Your task to perform on an android device: Find coffee shops on Maps Image 0: 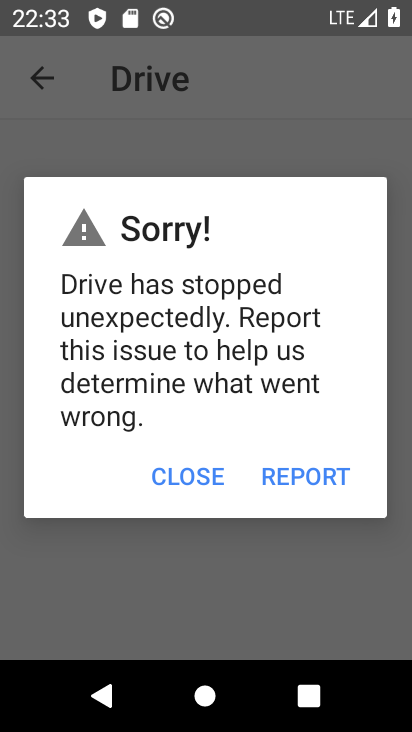
Step 0: press home button
Your task to perform on an android device: Find coffee shops on Maps Image 1: 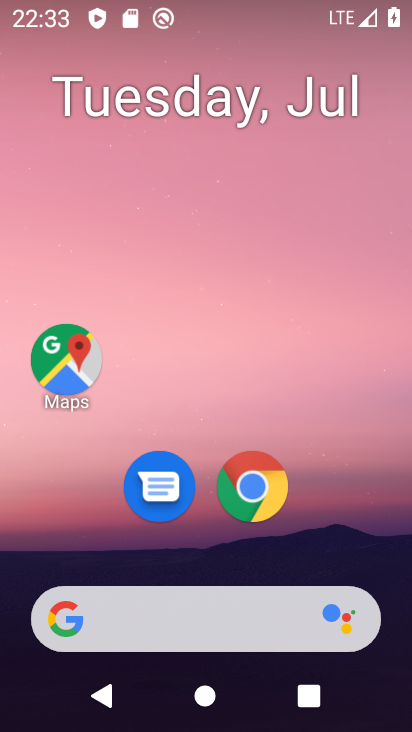
Step 1: drag from (370, 547) to (360, 306)
Your task to perform on an android device: Find coffee shops on Maps Image 2: 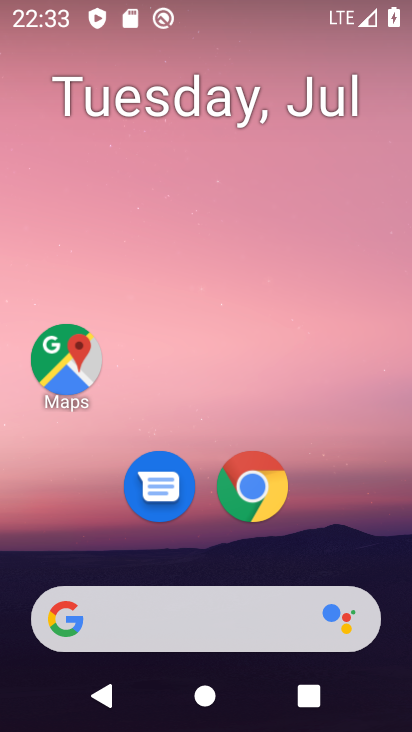
Step 2: drag from (377, 509) to (380, 211)
Your task to perform on an android device: Find coffee shops on Maps Image 3: 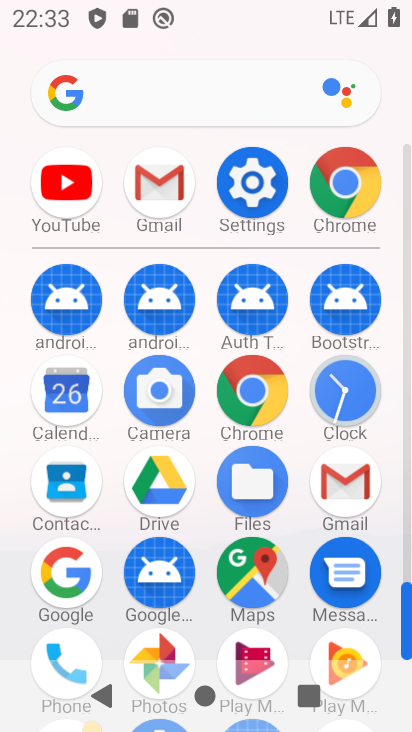
Step 3: click (259, 560)
Your task to perform on an android device: Find coffee shops on Maps Image 4: 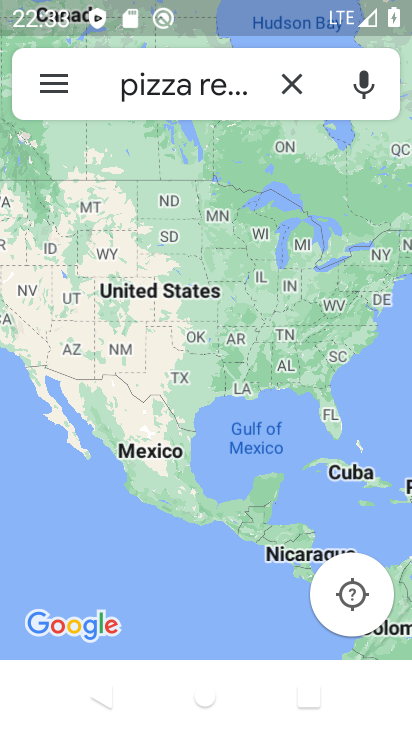
Step 4: click (284, 74)
Your task to perform on an android device: Find coffee shops on Maps Image 5: 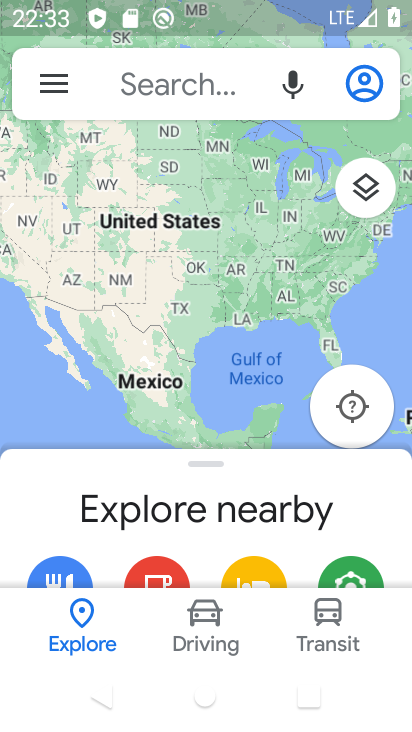
Step 5: click (197, 85)
Your task to perform on an android device: Find coffee shops on Maps Image 6: 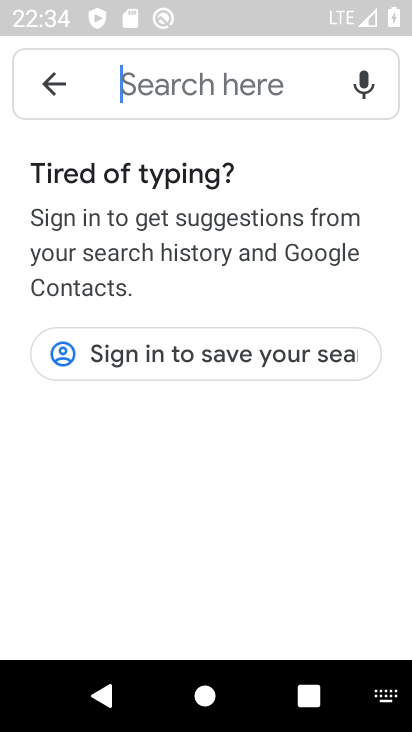
Step 6: type "coffee shops"
Your task to perform on an android device: Find coffee shops on Maps Image 7: 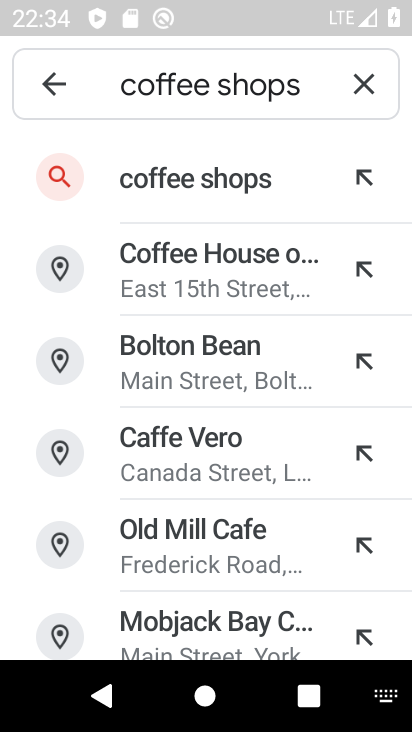
Step 7: click (281, 197)
Your task to perform on an android device: Find coffee shops on Maps Image 8: 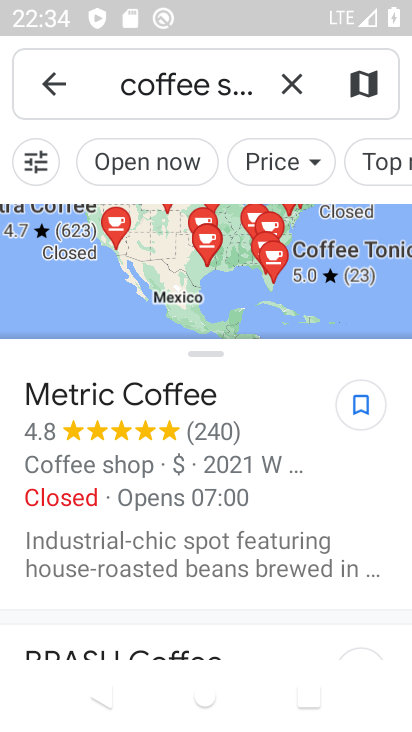
Step 8: task complete